Your task to perform on an android device: Open Google Chrome and click the shortcut for Amazon.com Image 0: 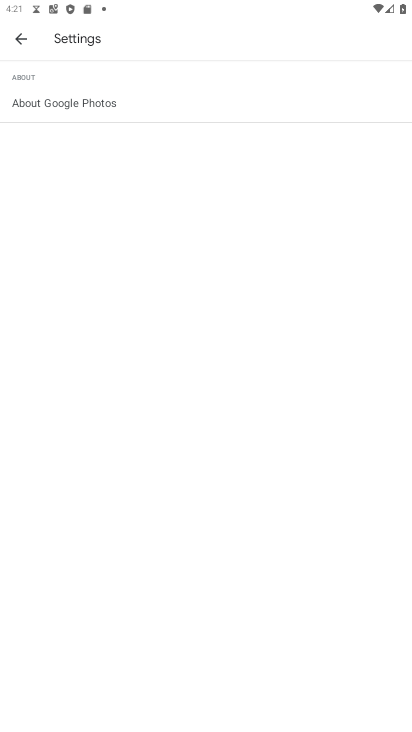
Step 0: press home button
Your task to perform on an android device: Open Google Chrome and click the shortcut for Amazon.com Image 1: 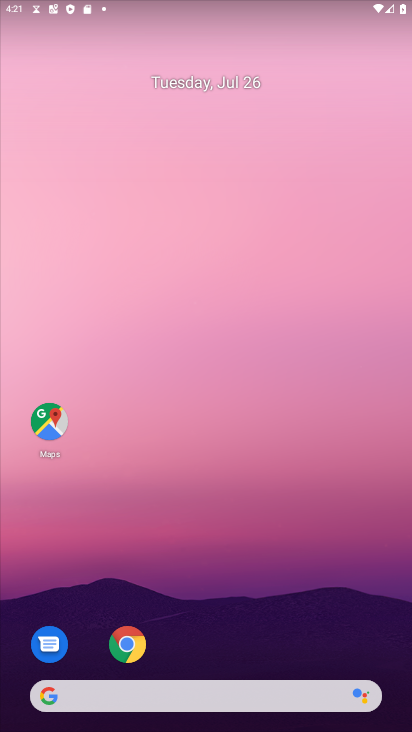
Step 1: click (132, 645)
Your task to perform on an android device: Open Google Chrome and click the shortcut for Amazon.com Image 2: 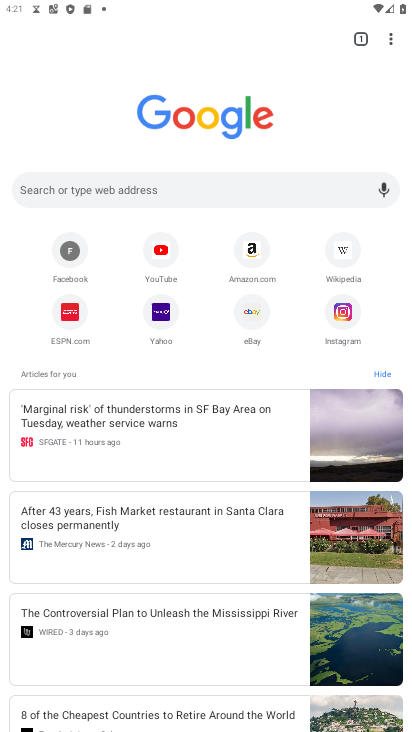
Step 2: click (251, 247)
Your task to perform on an android device: Open Google Chrome and click the shortcut for Amazon.com Image 3: 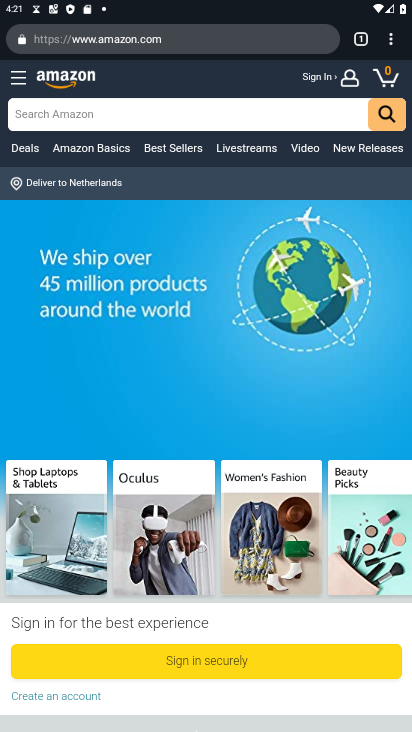
Step 3: task complete